Your task to perform on an android device: turn on wifi Image 0: 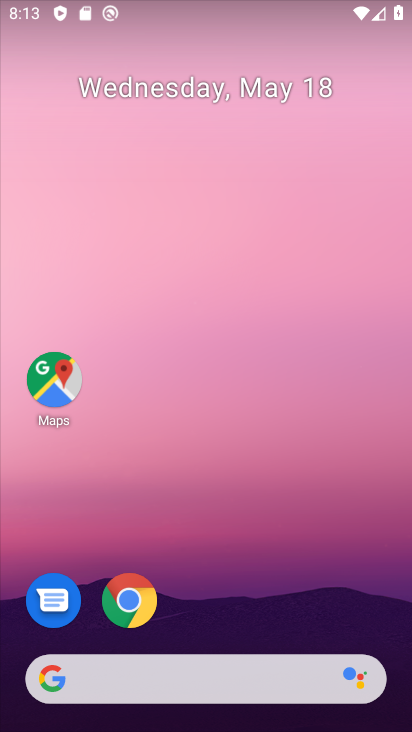
Step 0: drag from (364, 2) to (180, 468)
Your task to perform on an android device: turn on wifi Image 1: 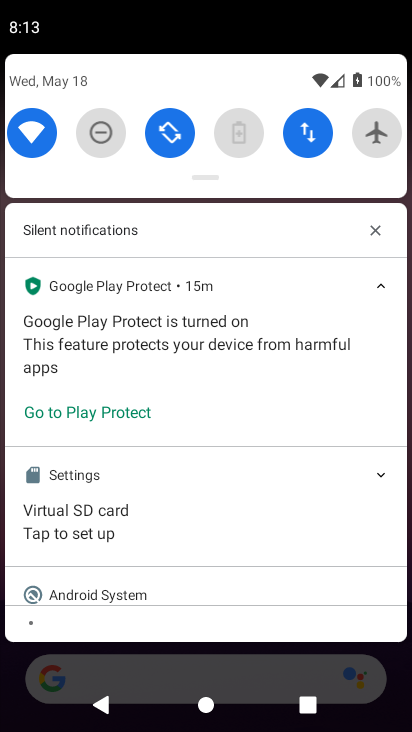
Step 1: click (43, 135)
Your task to perform on an android device: turn on wifi Image 2: 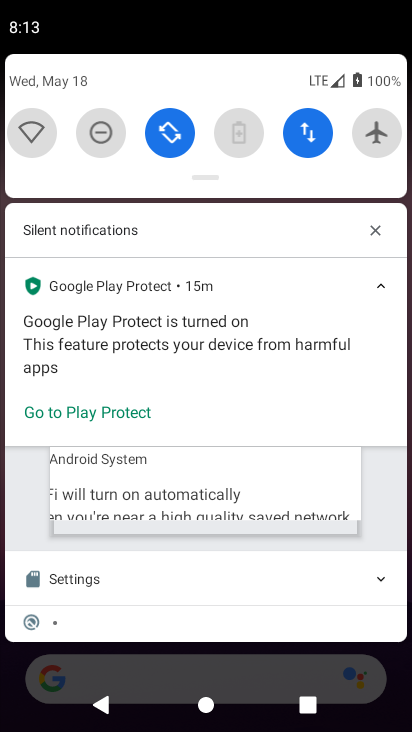
Step 2: click (49, 134)
Your task to perform on an android device: turn on wifi Image 3: 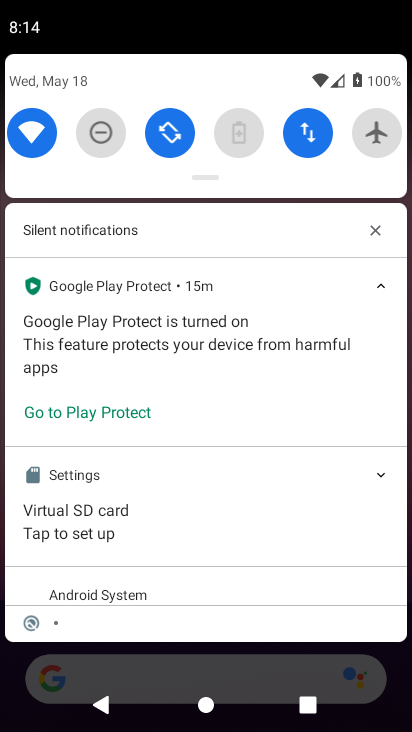
Step 3: task complete